Your task to perform on an android device: What's the weather? Image 0: 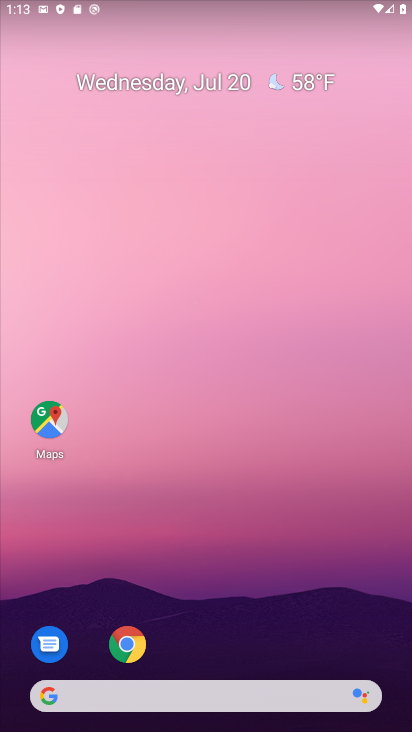
Step 0: click (196, 48)
Your task to perform on an android device: What's the weather? Image 1: 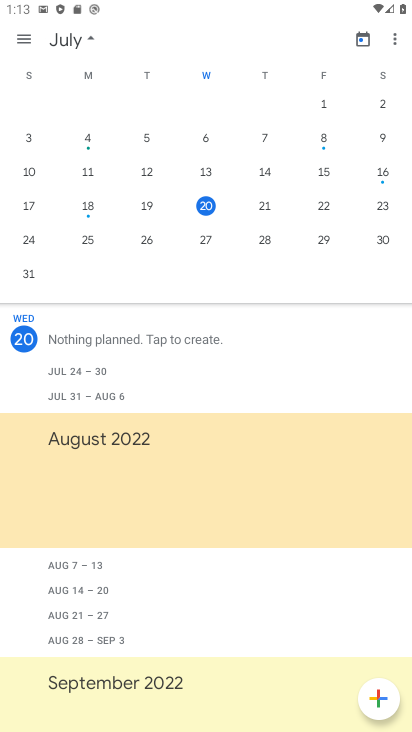
Step 1: press home button
Your task to perform on an android device: What's the weather? Image 2: 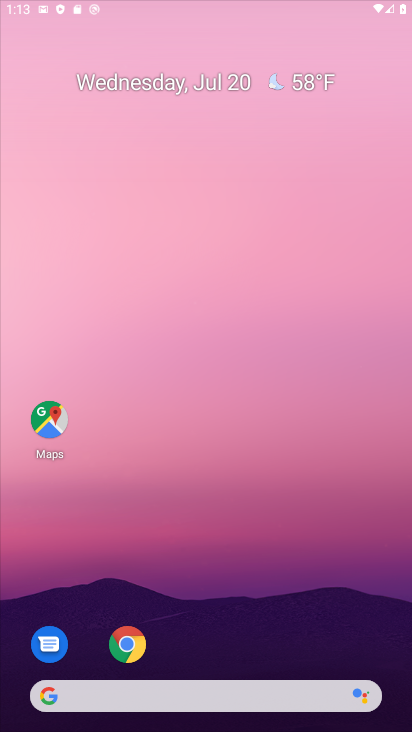
Step 2: drag from (232, 647) to (232, 121)
Your task to perform on an android device: What's the weather? Image 3: 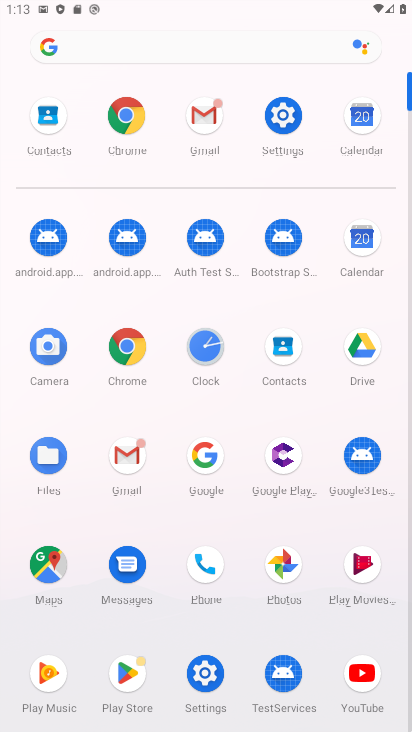
Step 3: click (196, 451)
Your task to perform on an android device: What's the weather? Image 4: 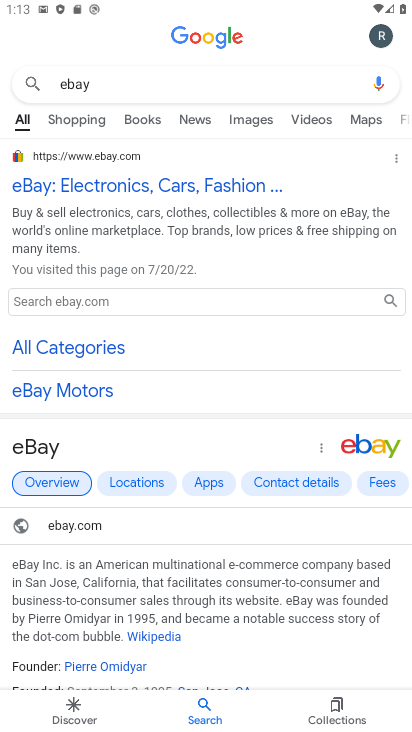
Step 4: click (264, 87)
Your task to perform on an android device: What's the weather? Image 5: 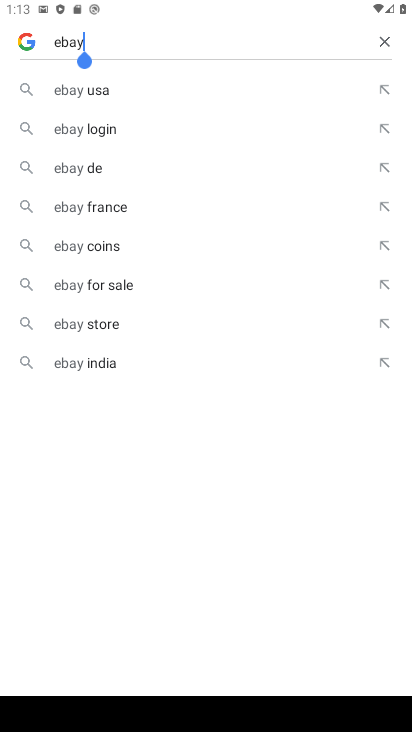
Step 5: click (375, 34)
Your task to perform on an android device: What's the weather? Image 6: 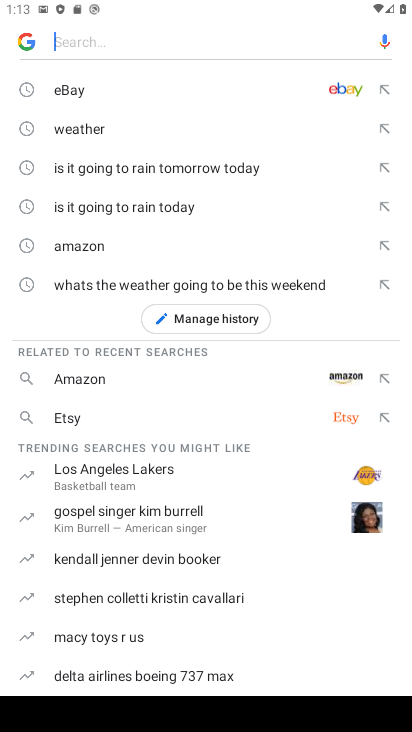
Step 6: click (106, 124)
Your task to perform on an android device: What's the weather? Image 7: 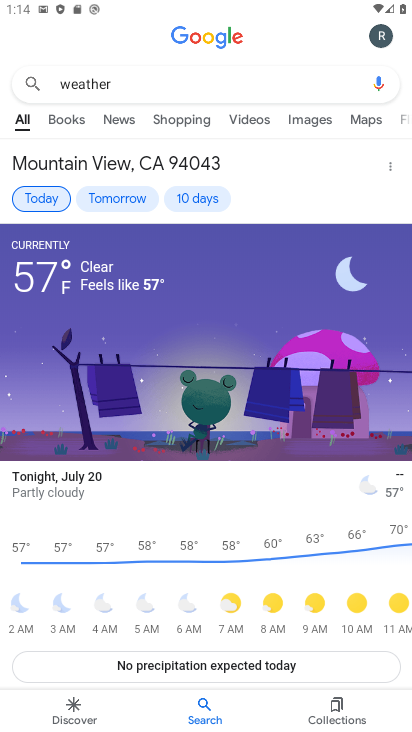
Step 7: task complete